Your task to perform on an android device: Search for vegetarian restaurants on Maps Image 0: 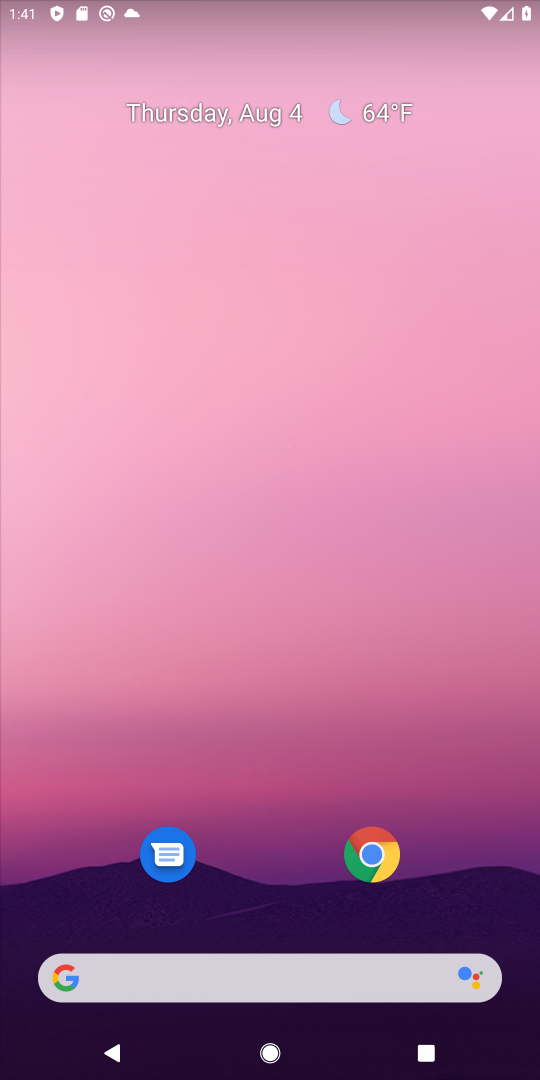
Step 0: click (203, 989)
Your task to perform on an android device: Search for vegetarian restaurants on Maps Image 1: 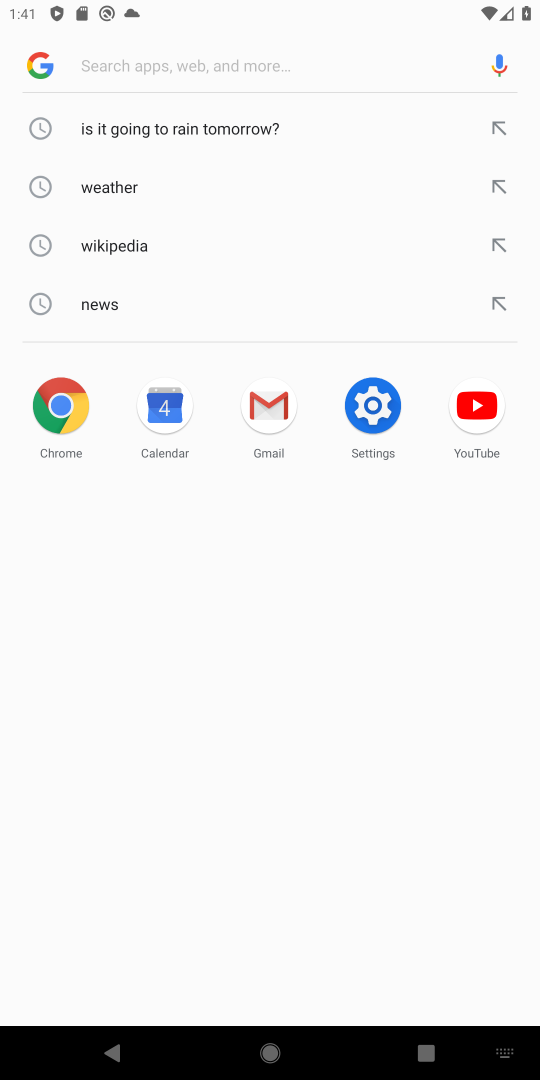
Step 1: type "vegetarian restaurants "
Your task to perform on an android device: Search for vegetarian restaurants on Maps Image 2: 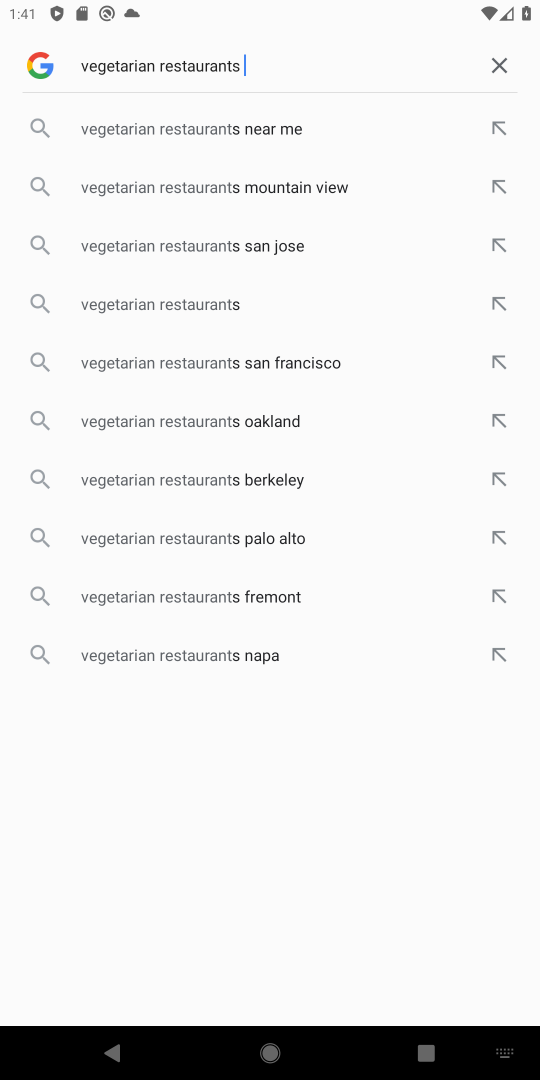
Step 2: press enter
Your task to perform on an android device: Search for vegetarian restaurants on Maps Image 3: 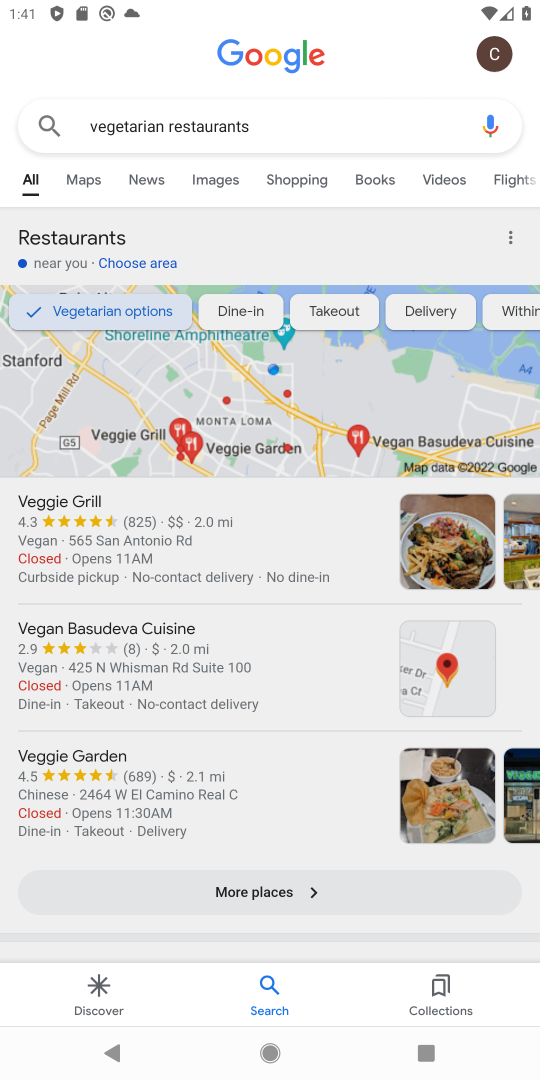
Step 3: task complete